Your task to perform on an android device: Go to battery settings Image 0: 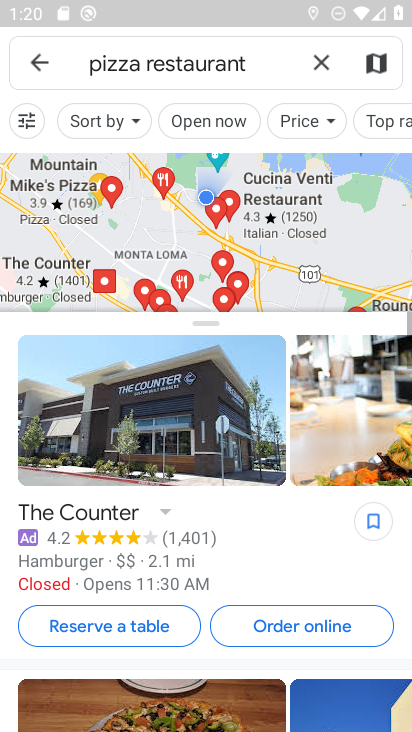
Step 0: press home button
Your task to perform on an android device: Go to battery settings Image 1: 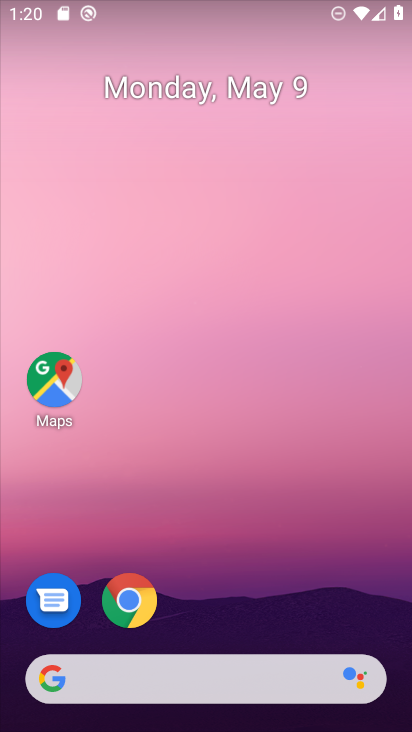
Step 1: drag from (119, 685) to (274, 106)
Your task to perform on an android device: Go to battery settings Image 2: 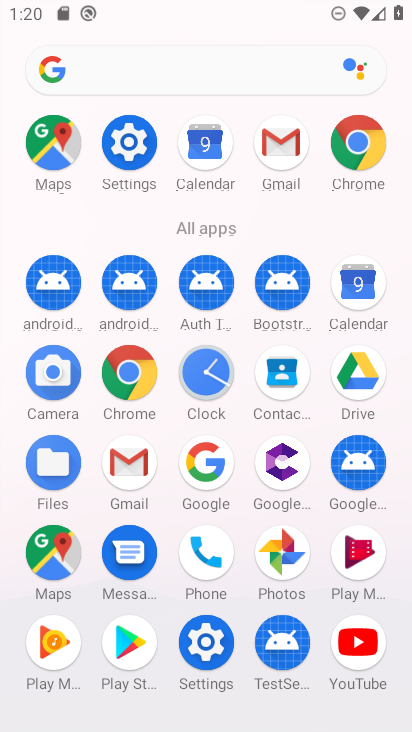
Step 2: click (140, 143)
Your task to perform on an android device: Go to battery settings Image 3: 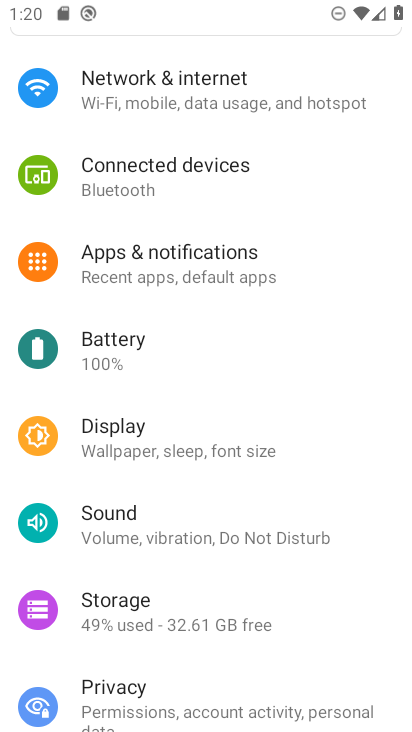
Step 3: click (137, 346)
Your task to perform on an android device: Go to battery settings Image 4: 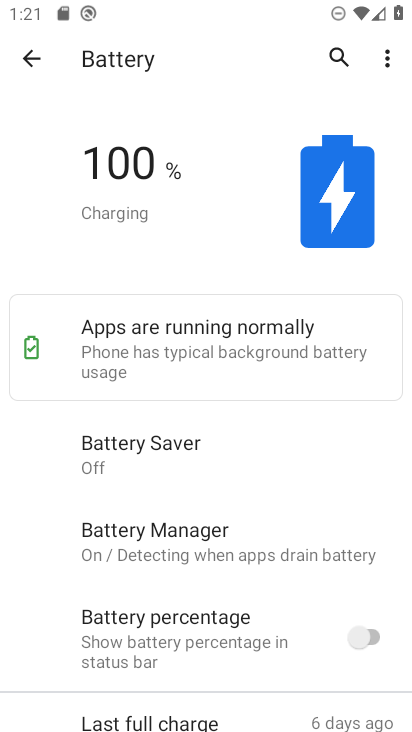
Step 4: task complete